Your task to perform on an android device: turn off sleep mode Image 0: 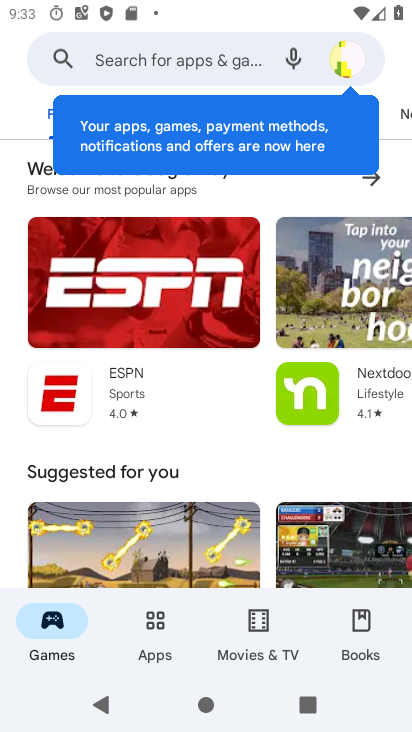
Step 0: press home button
Your task to perform on an android device: turn off sleep mode Image 1: 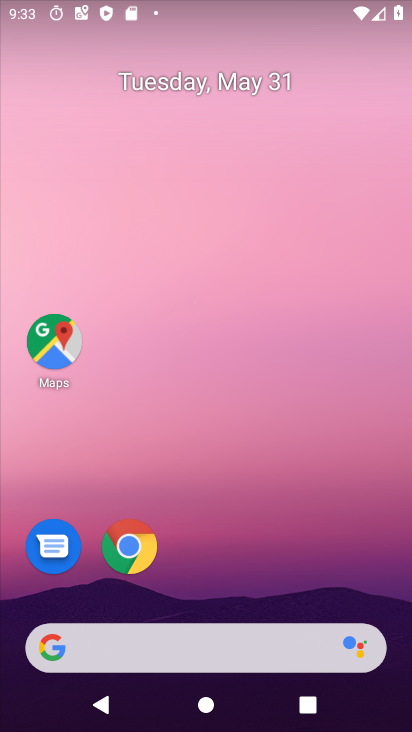
Step 1: drag from (252, 601) to (266, 107)
Your task to perform on an android device: turn off sleep mode Image 2: 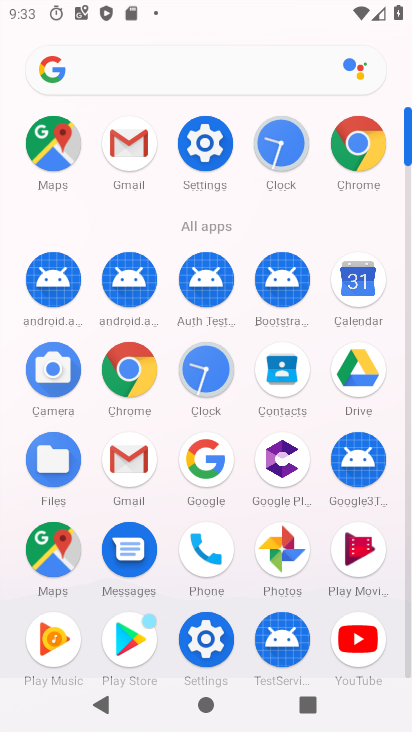
Step 2: click (213, 142)
Your task to perform on an android device: turn off sleep mode Image 3: 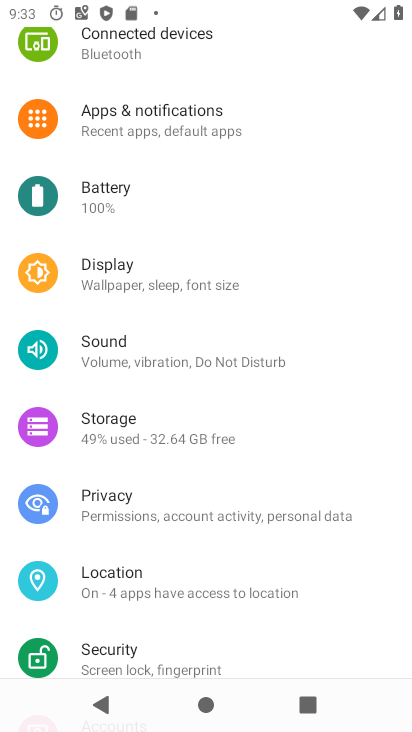
Step 3: click (138, 272)
Your task to perform on an android device: turn off sleep mode Image 4: 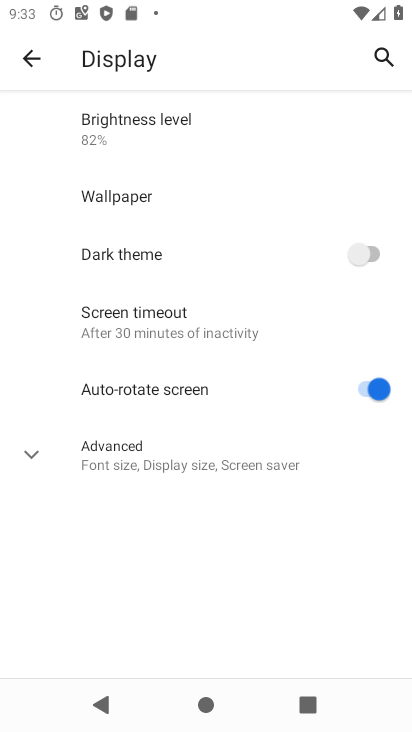
Step 4: click (194, 466)
Your task to perform on an android device: turn off sleep mode Image 5: 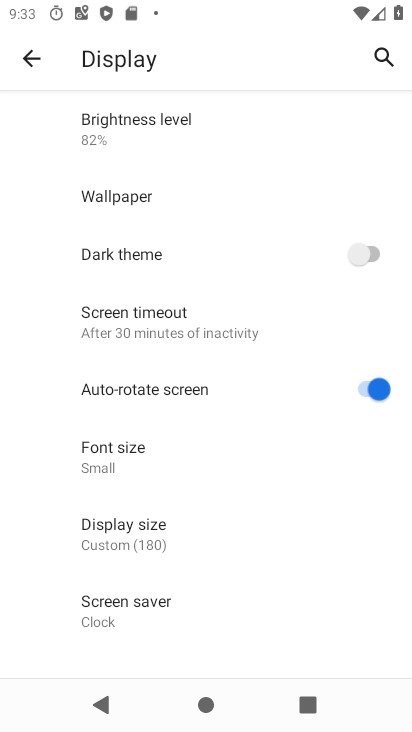
Step 5: task complete